Your task to perform on an android device: add a contact Image 0: 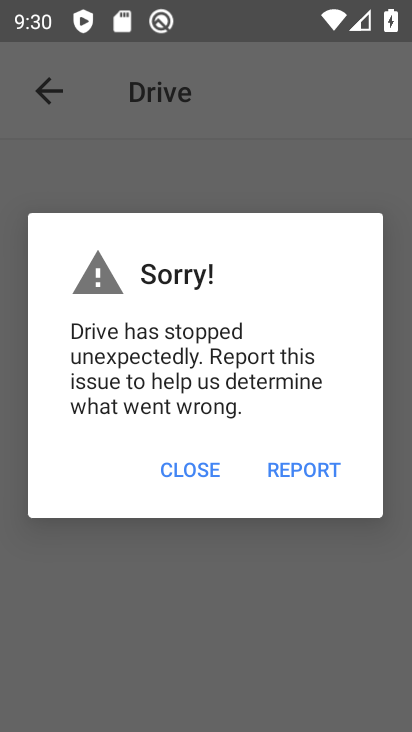
Step 0: press home button
Your task to perform on an android device: add a contact Image 1: 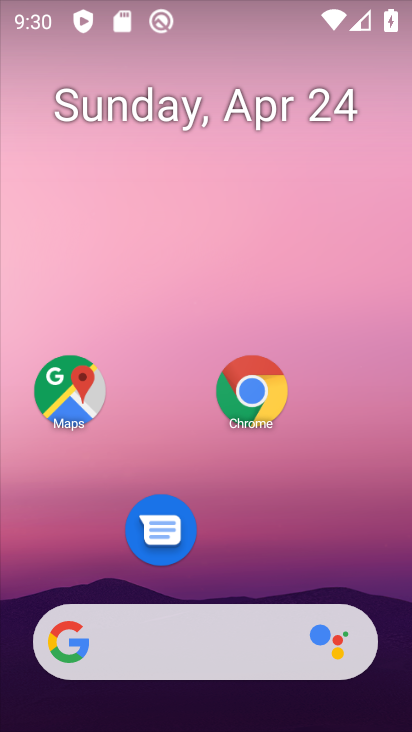
Step 1: drag from (269, 556) to (257, 99)
Your task to perform on an android device: add a contact Image 2: 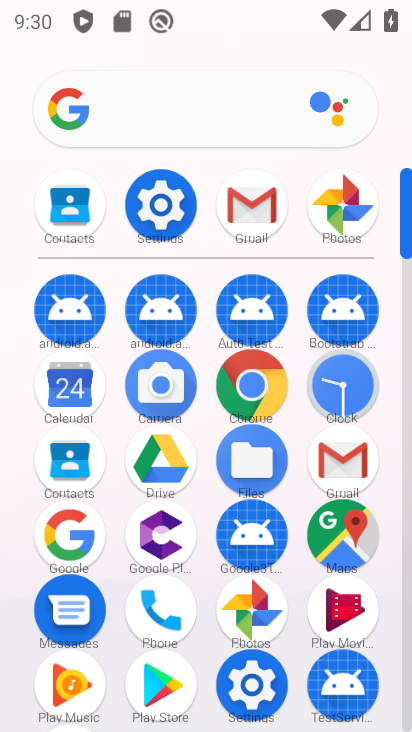
Step 2: click (58, 222)
Your task to perform on an android device: add a contact Image 3: 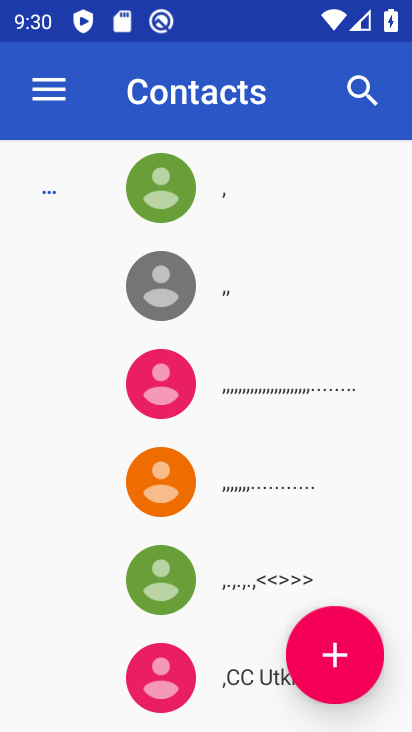
Step 3: click (326, 621)
Your task to perform on an android device: add a contact Image 4: 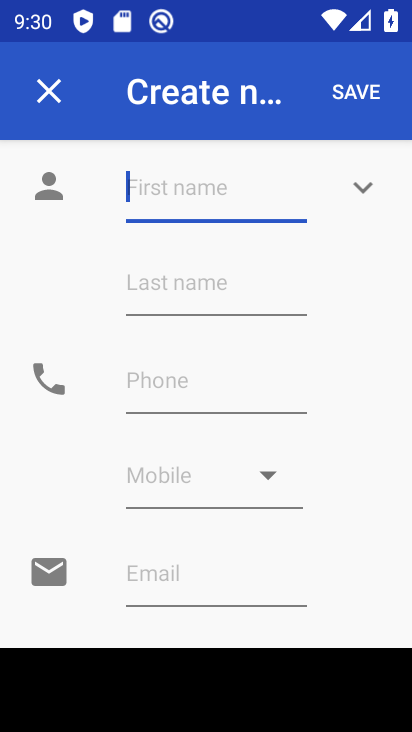
Step 4: type ",,,"
Your task to perform on an android device: add a contact Image 5: 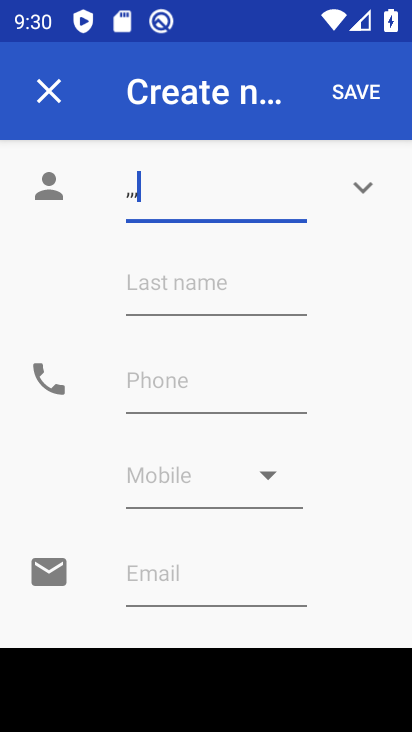
Step 5: click (208, 394)
Your task to perform on an android device: add a contact Image 6: 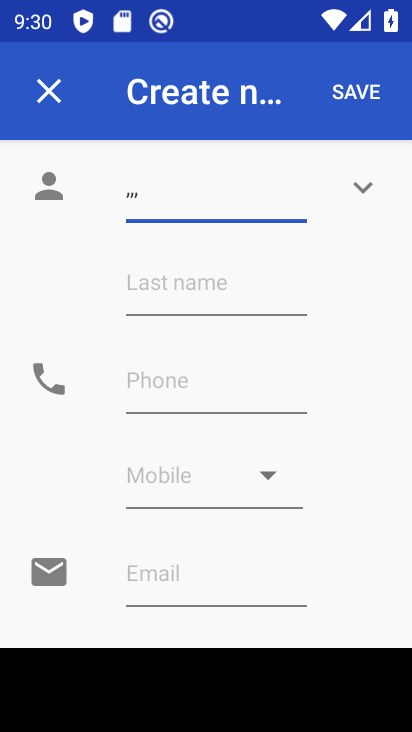
Step 6: click (208, 394)
Your task to perform on an android device: add a contact Image 7: 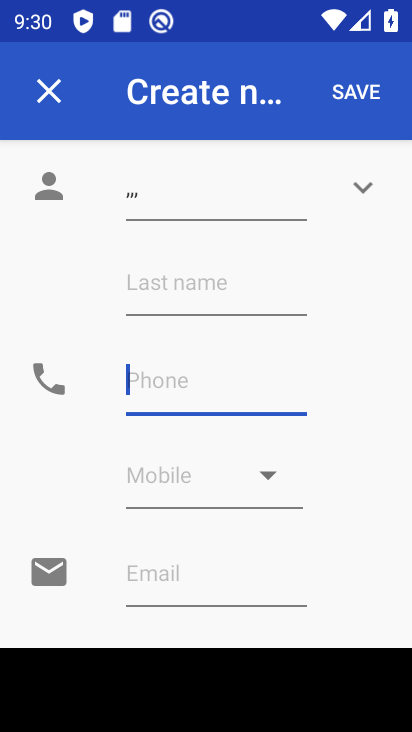
Step 7: type "876545678"
Your task to perform on an android device: add a contact Image 8: 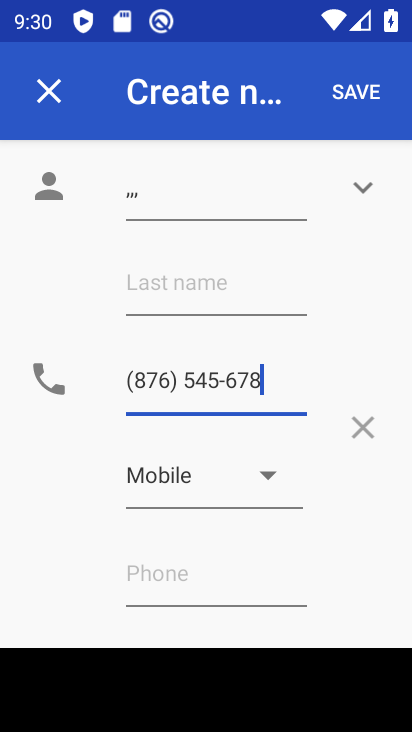
Step 8: click (364, 102)
Your task to perform on an android device: add a contact Image 9: 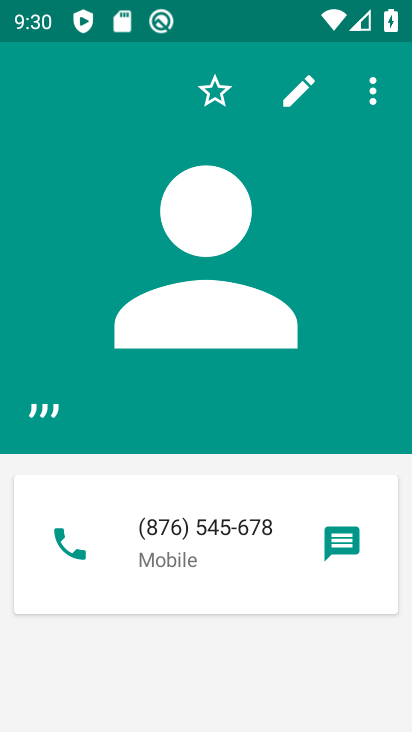
Step 9: task complete